Your task to perform on an android device: turn on the 24-hour format for clock Image 0: 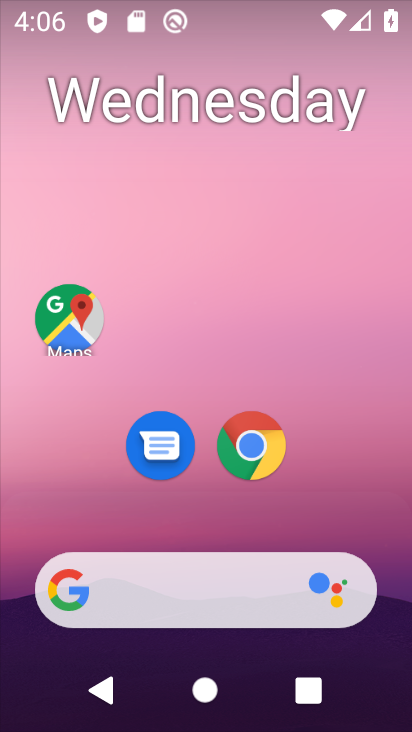
Step 0: drag from (187, 543) to (177, 128)
Your task to perform on an android device: turn on the 24-hour format for clock Image 1: 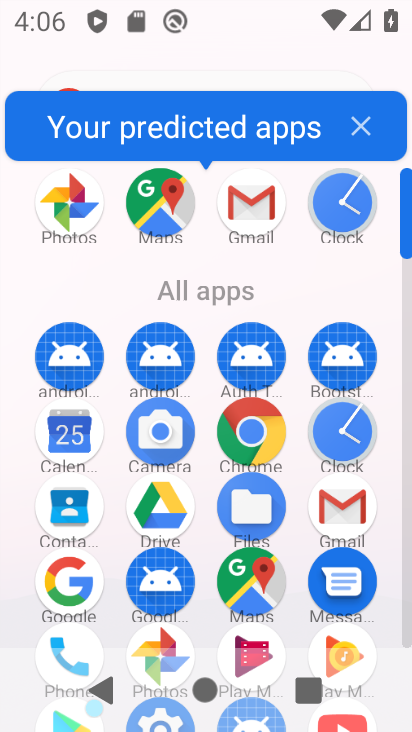
Step 1: click (332, 191)
Your task to perform on an android device: turn on the 24-hour format for clock Image 2: 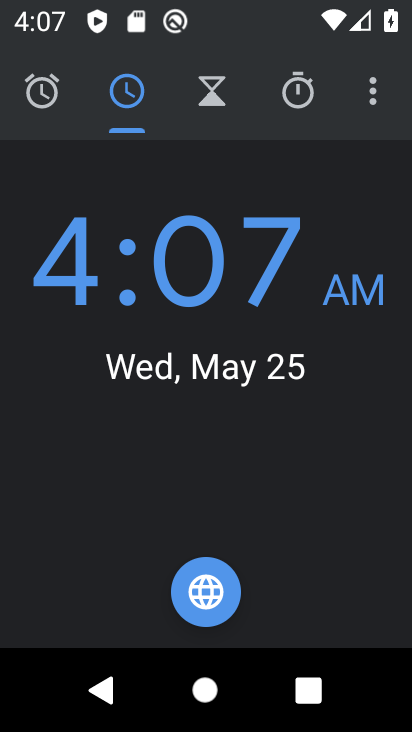
Step 2: click (386, 86)
Your task to perform on an android device: turn on the 24-hour format for clock Image 3: 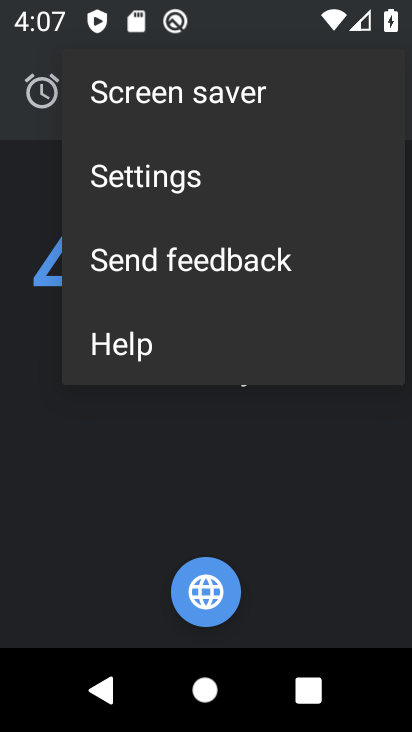
Step 3: click (174, 192)
Your task to perform on an android device: turn on the 24-hour format for clock Image 4: 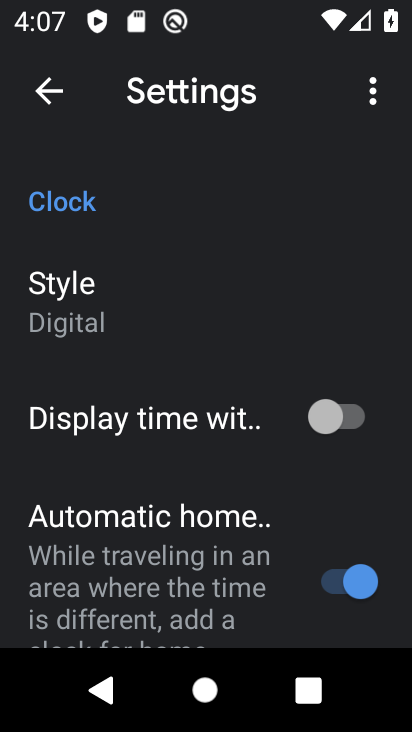
Step 4: drag from (151, 557) to (207, 191)
Your task to perform on an android device: turn on the 24-hour format for clock Image 5: 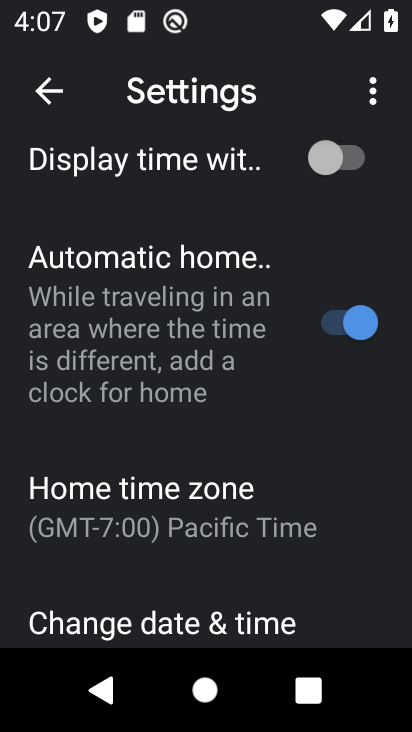
Step 5: drag from (200, 629) to (212, 318)
Your task to perform on an android device: turn on the 24-hour format for clock Image 6: 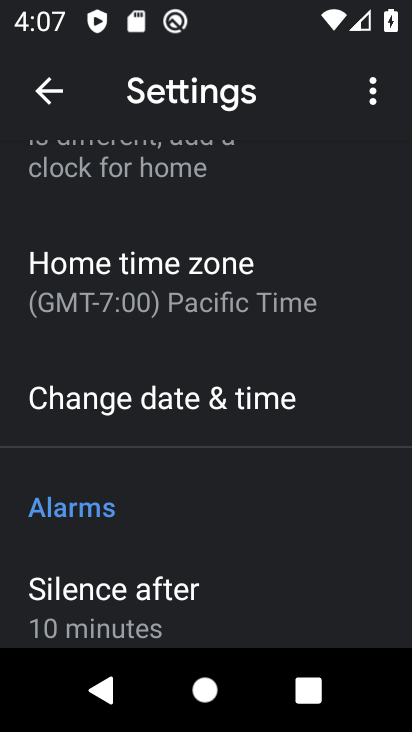
Step 6: click (217, 400)
Your task to perform on an android device: turn on the 24-hour format for clock Image 7: 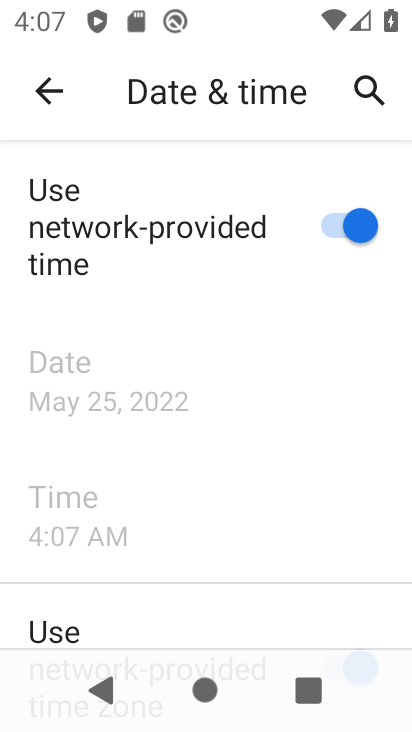
Step 7: drag from (113, 592) to (184, 355)
Your task to perform on an android device: turn on the 24-hour format for clock Image 8: 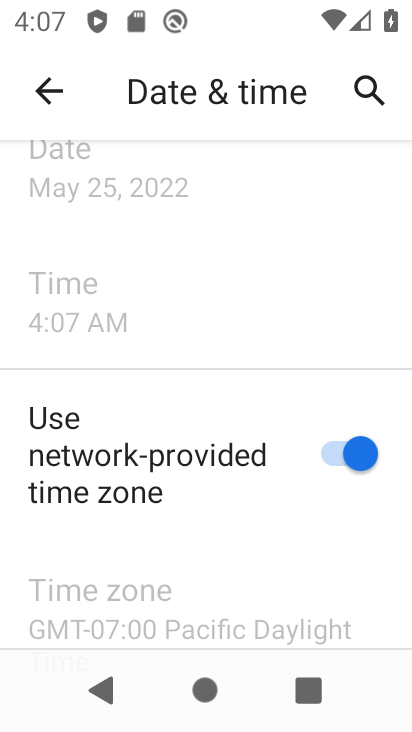
Step 8: drag from (135, 554) to (168, 543)
Your task to perform on an android device: turn on the 24-hour format for clock Image 9: 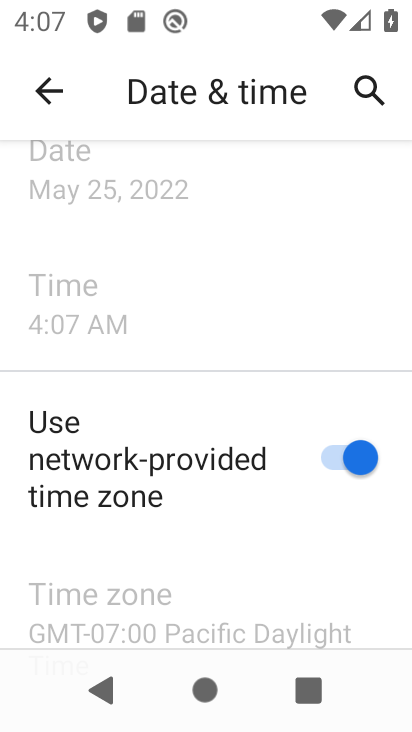
Step 9: drag from (162, 316) to (165, 500)
Your task to perform on an android device: turn on the 24-hour format for clock Image 10: 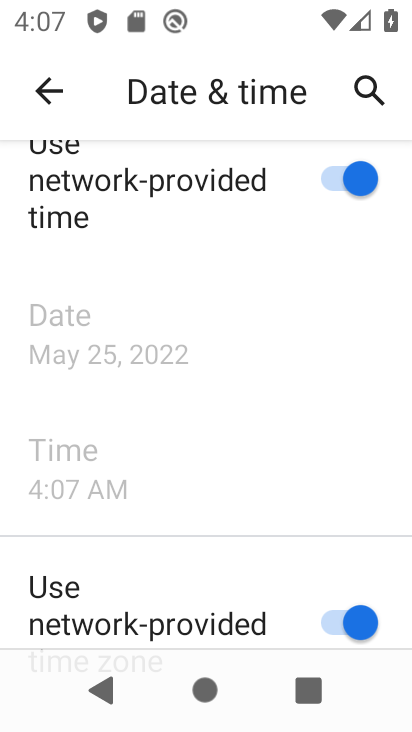
Step 10: click (44, 101)
Your task to perform on an android device: turn on the 24-hour format for clock Image 11: 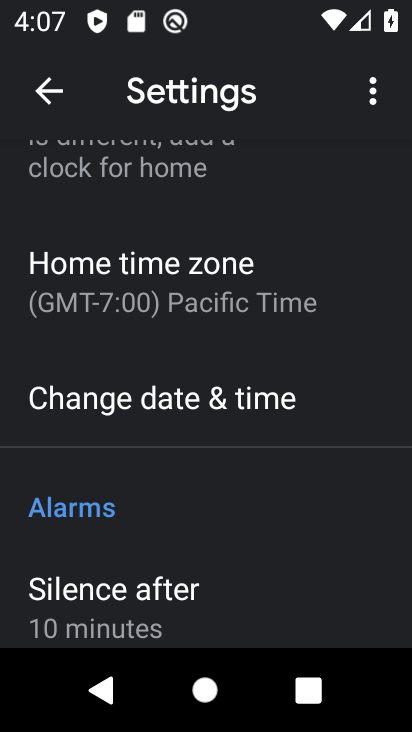
Step 11: click (206, 410)
Your task to perform on an android device: turn on the 24-hour format for clock Image 12: 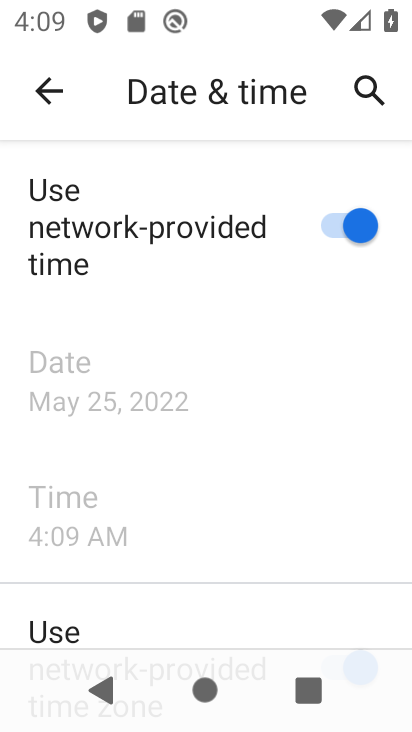
Step 12: drag from (169, 508) to (142, 134)
Your task to perform on an android device: turn on the 24-hour format for clock Image 13: 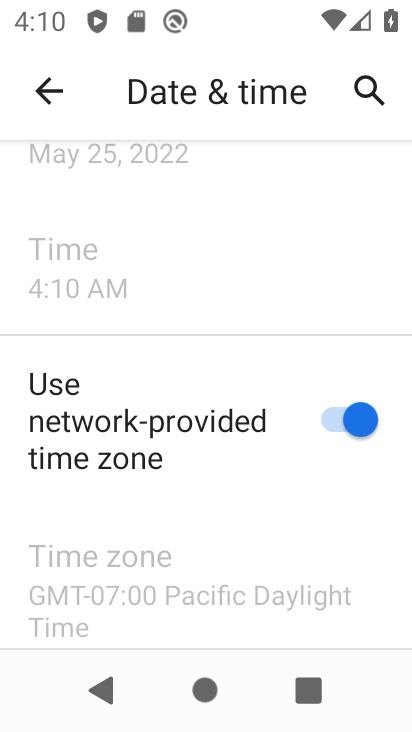
Step 13: drag from (188, 576) to (182, 186)
Your task to perform on an android device: turn on the 24-hour format for clock Image 14: 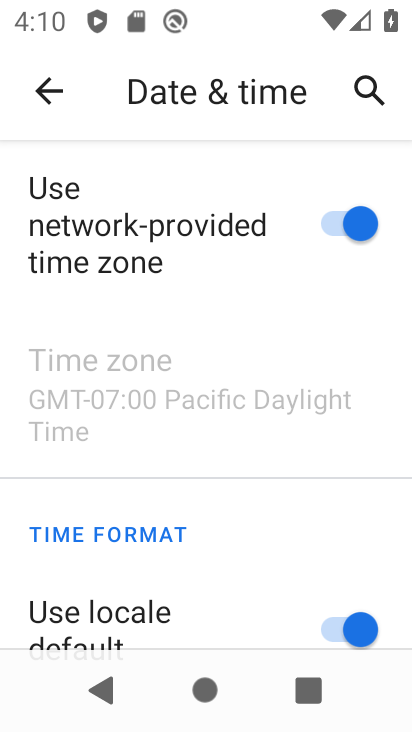
Step 14: drag from (177, 602) to (252, 181)
Your task to perform on an android device: turn on the 24-hour format for clock Image 15: 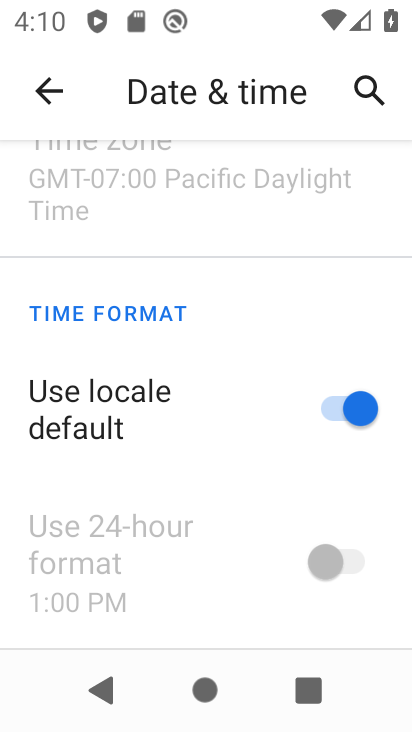
Step 15: click (367, 399)
Your task to perform on an android device: turn on the 24-hour format for clock Image 16: 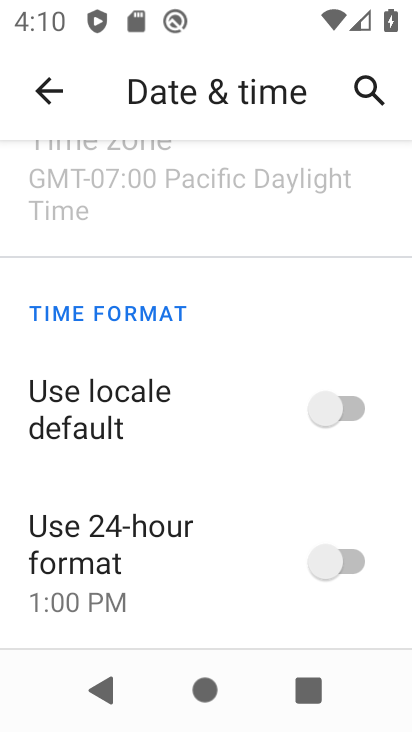
Step 16: click (350, 569)
Your task to perform on an android device: turn on the 24-hour format for clock Image 17: 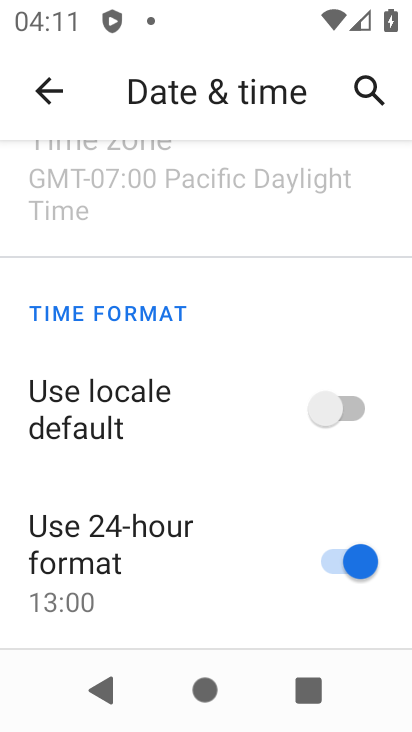
Step 17: task complete